Your task to perform on an android device: Show me recent news Image 0: 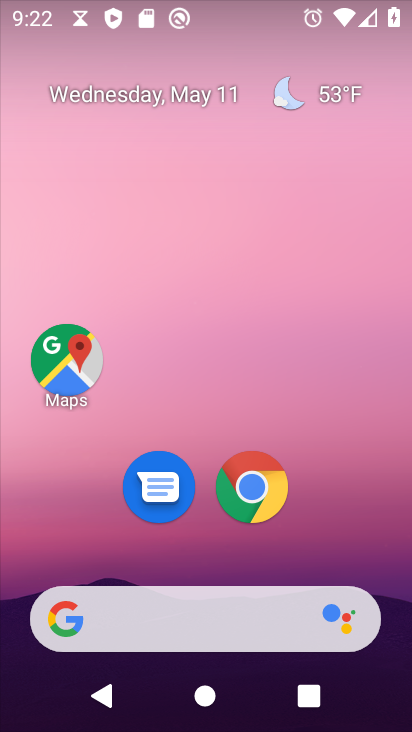
Step 0: drag from (216, 556) to (212, 157)
Your task to perform on an android device: Show me recent news Image 1: 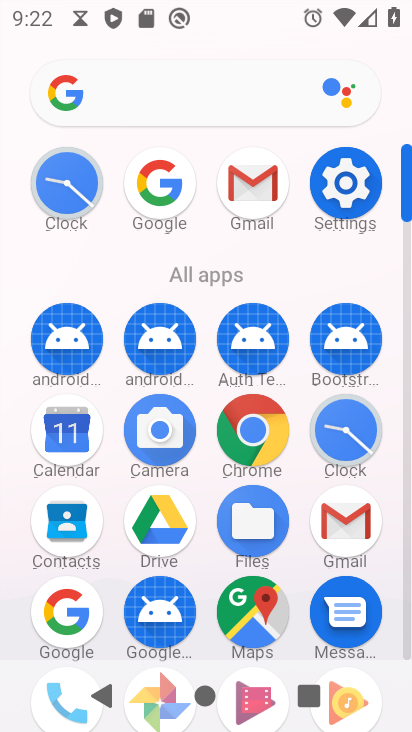
Step 1: click (159, 217)
Your task to perform on an android device: Show me recent news Image 2: 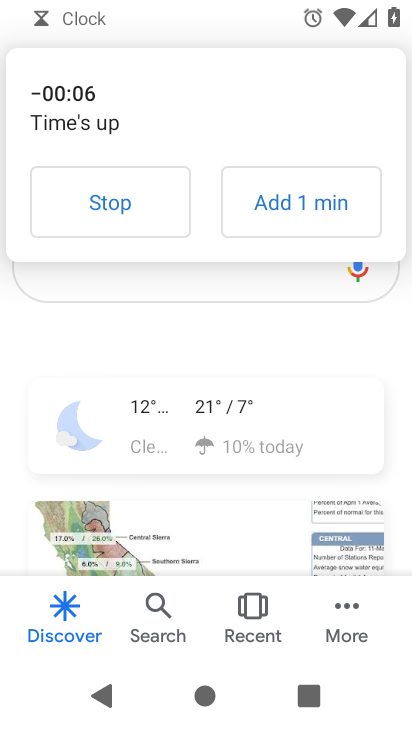
Step 2: click (127, 217)
Your task to perform on an android device: Show me recent news Image 3: 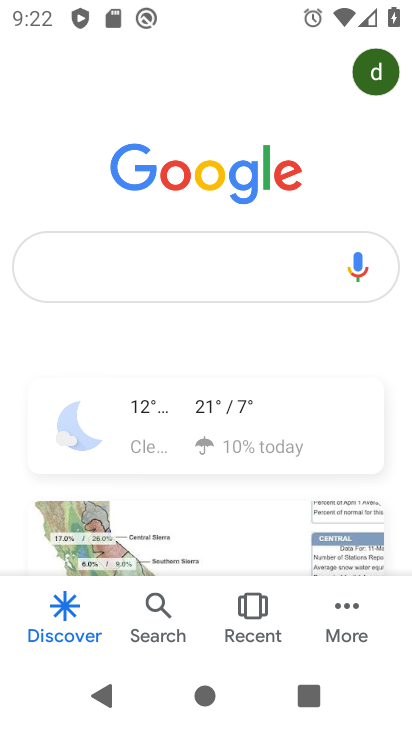
Step 3: click (134, 273)
Your task to perform on an android device: Show me recent news Image 4: 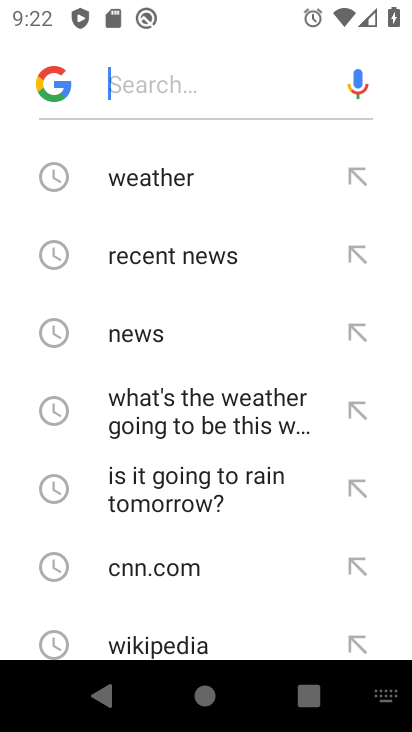
Step 4: click (177, 254)
Your task to perform on an android device: Show me recent news Image 5: 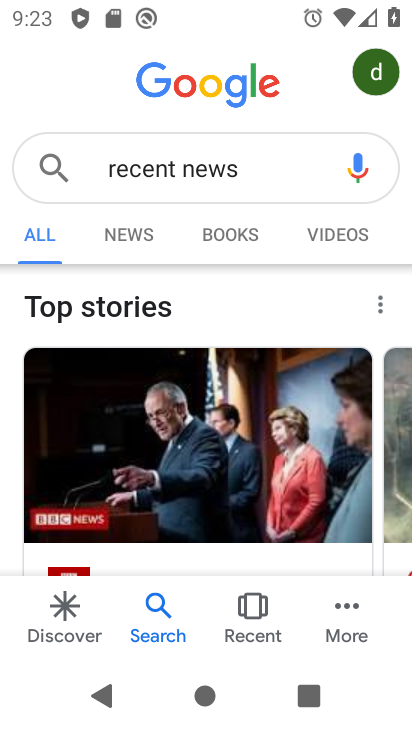
Step 5: click (134, 234)
Your task to perform on an android device: Show me recent news Image 6: 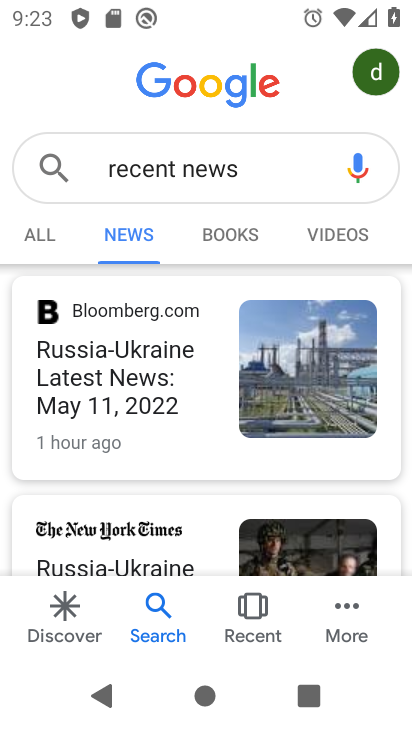
Step 6: task complete